Your task to perform on an android device: turn off location history Image 0: 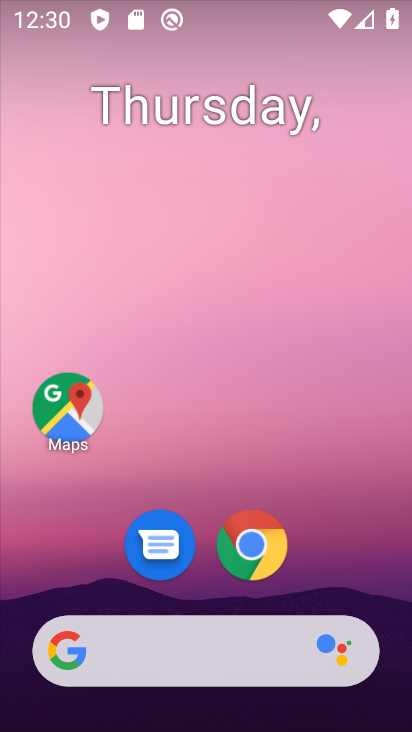
Step 0: drag from (287, 425) to (273, 134)
Your task to perform on an android device: turn off location history Image 1: 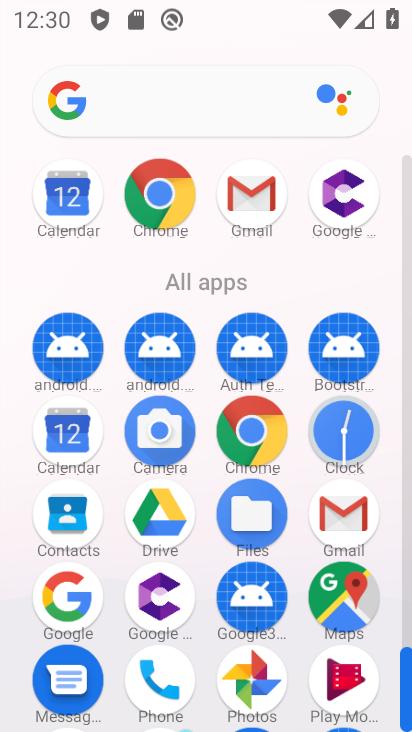
Step 1: drag from (97, 271) to (121, 81)
Your task to perform on an android device: turn off location history Image 2: 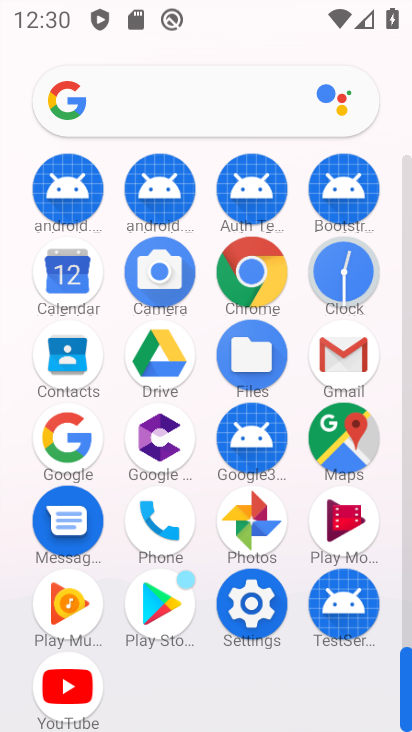
Step 2: click (238, 620)
Your task to perform on an android device: turn off location history Image 3: 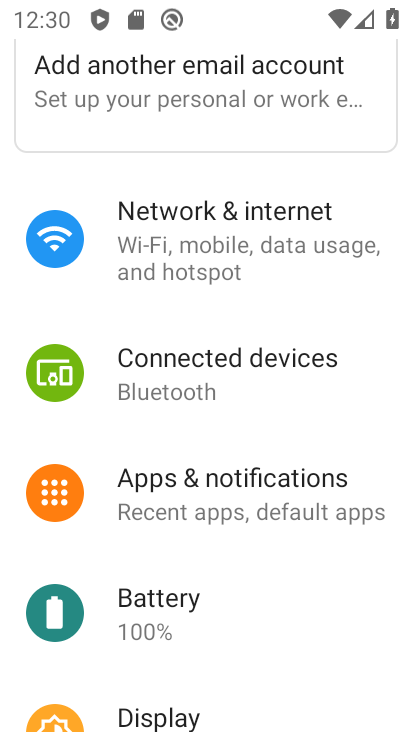
Step 3: drag from (194, 575) to (264, 159)
Your task to perform on an android device: turn off location history Image 4: 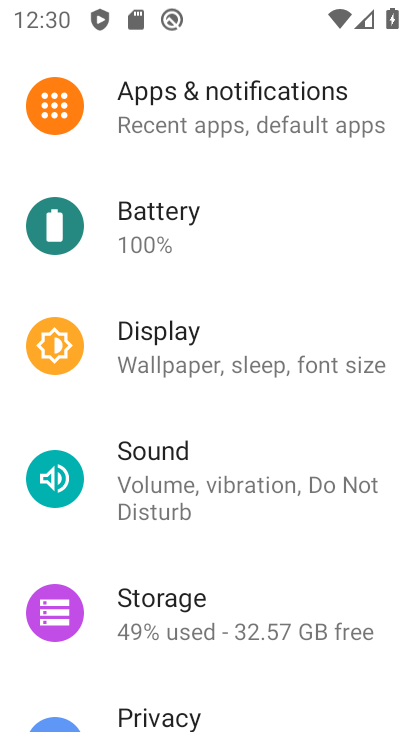
Step 4: drag from (230, 571) to (243, 239)
Your task to perform on an android device: turn off location history Image 5: 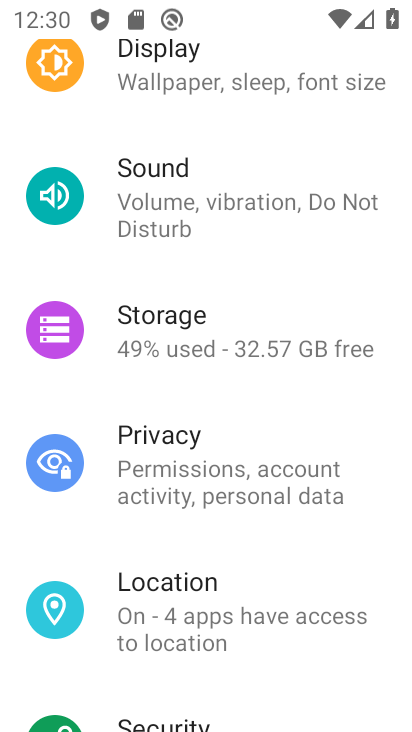
Step 5: click (213, 604)
Your task to perform on an android device: turn off location history Image 6: 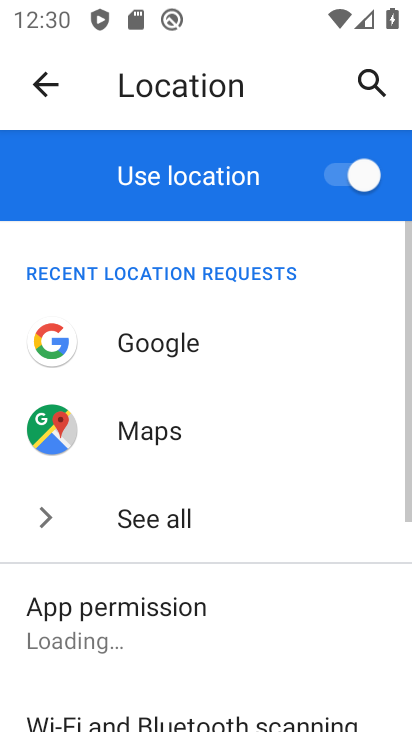
Step 6: drag from (151, 572) to (197, 264)
Your task to perform on an android device: turn off location history Image 7: 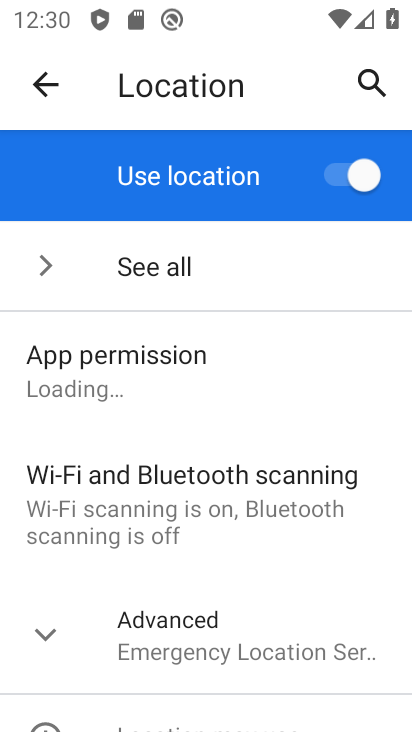
Step 7: click (199, 632)
Your task to perform on an android device: turn off location history Image 8: 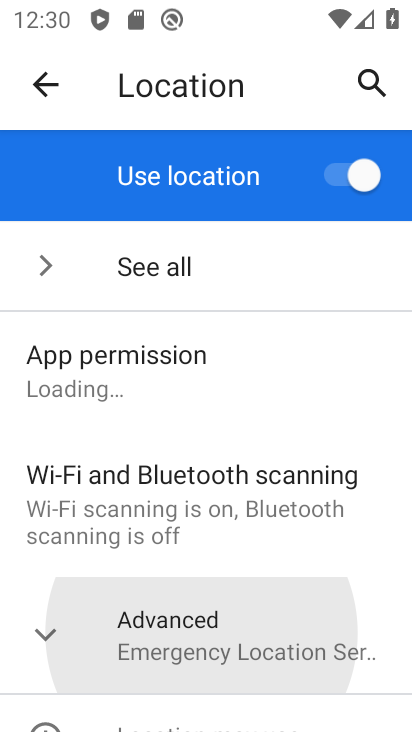
Step 8: drag from (195, 599) to (213, 336)
Your task to perform on an android device: turn off location history Image 9: 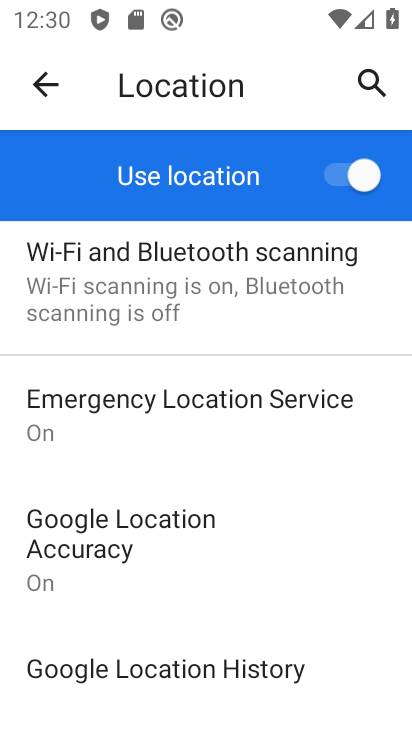
Step 9: drag from (188, 597) to (190, 409)
Your task to perform on an android device: turn off location history Image 10: 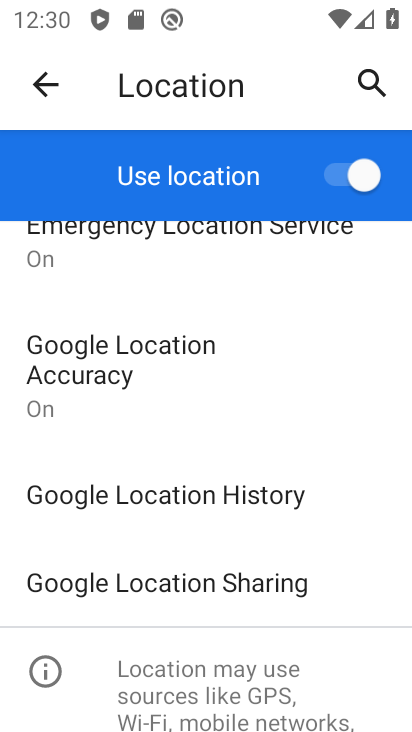
Step 10: click (210, 500)
Your task to perform on an android device: turn off location history Image 11: 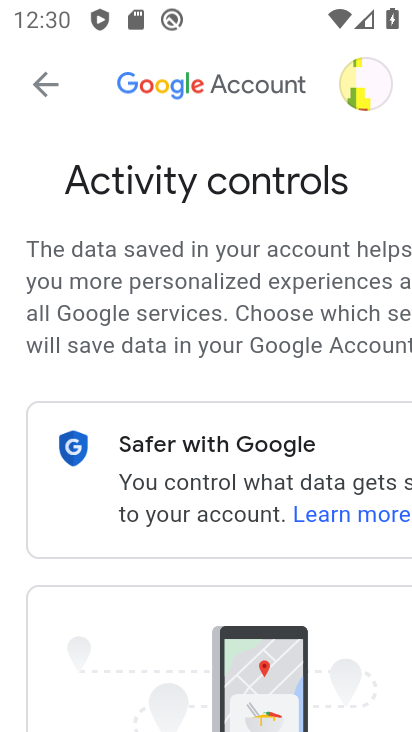
Step 11: drag from (291, 561) to (248, 278)
Your task to perform on an android device: turn off location history Image 12: 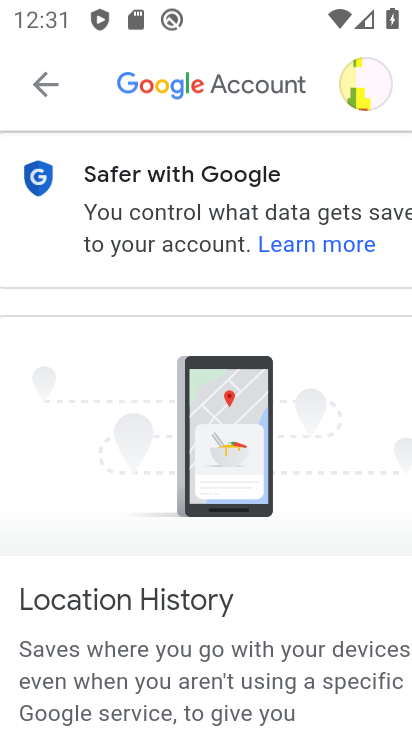
Step 12: drag from (295, 590) to (272, 316)
Your task to perform on an android device: turn off location history Image 13: 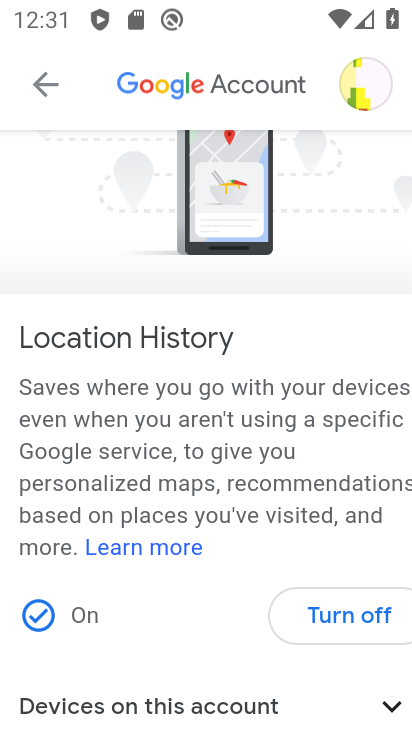
Step 13: drag from (215, 606) to (197, 377)
Your task to perform on an android device: turn off location history Image 14: 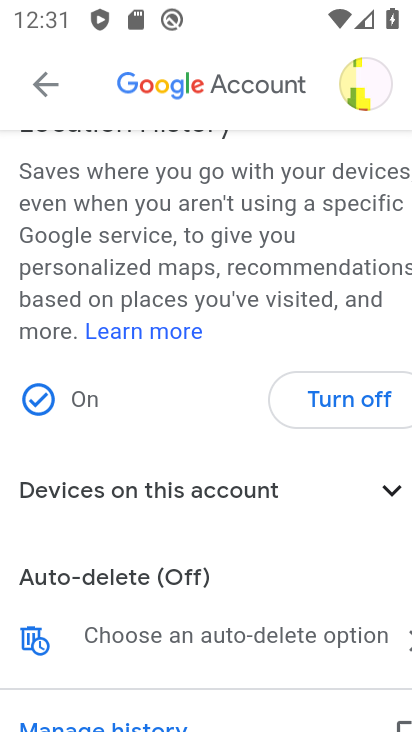
Step 14: drag from (242, 543) to (227, 379)
Your task to perform on an android device: turn off location history Image 15: 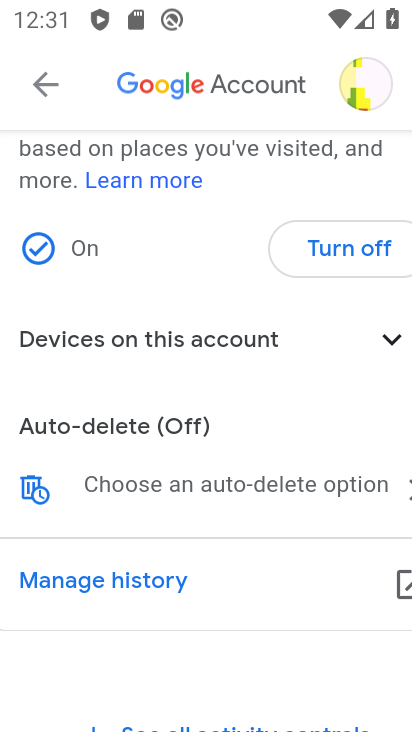
Step 15: click (322, 271)
Your task to perform on an android device: turn off location history Image 16: 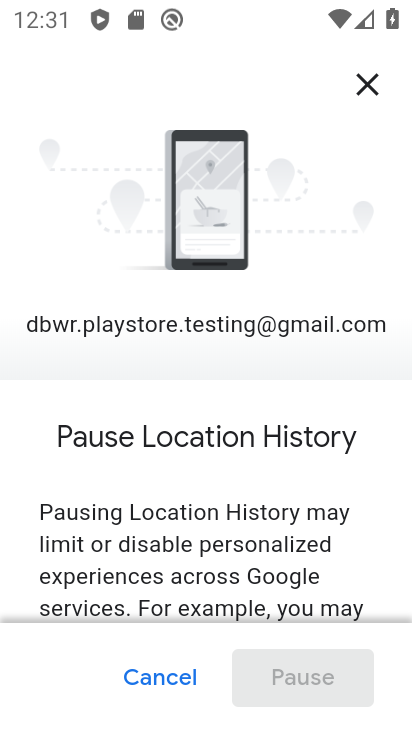
Step 16: drag from (252, 525) to (287, 146)
Your task to perform on an android device: turn off location history Image 17: 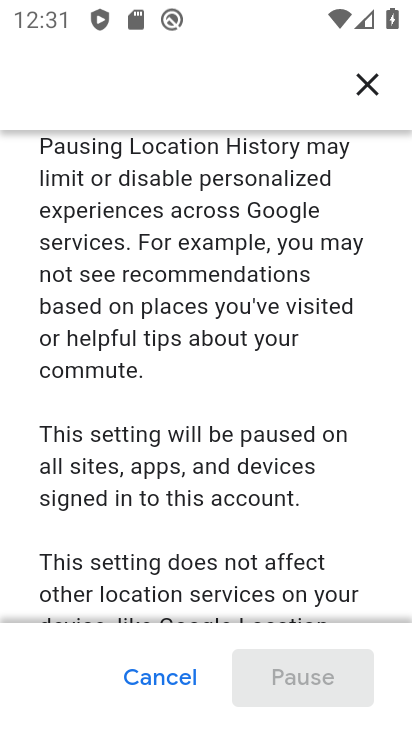
Step 17: drag from (194, 526) to (185, 206)
Your task to perform on an android device: turn off location history Image 18: 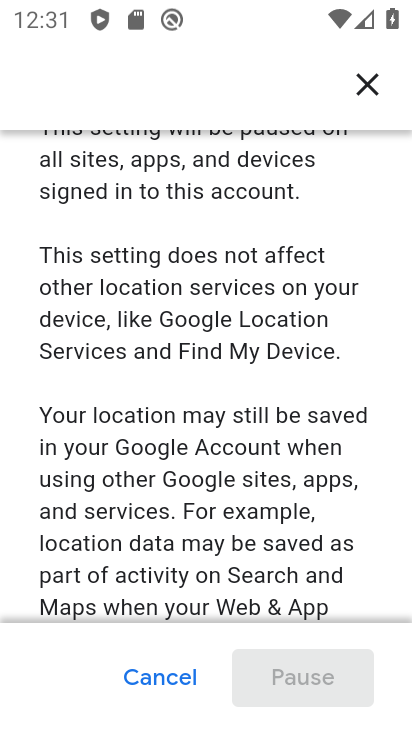
Step 18: drag from (227, 510) to (210, 196)
Your task to perform on an android device: turn off location history Image 19: 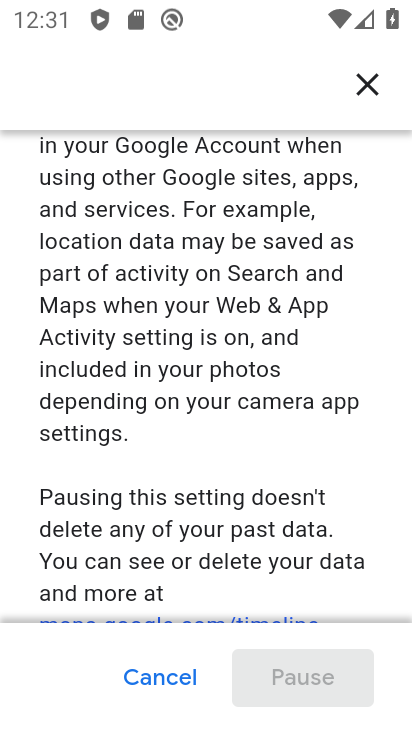
Step 19: drag from (266, 417) to (277, 171)
Your task to perform on an android device: turn off location history Image 20: 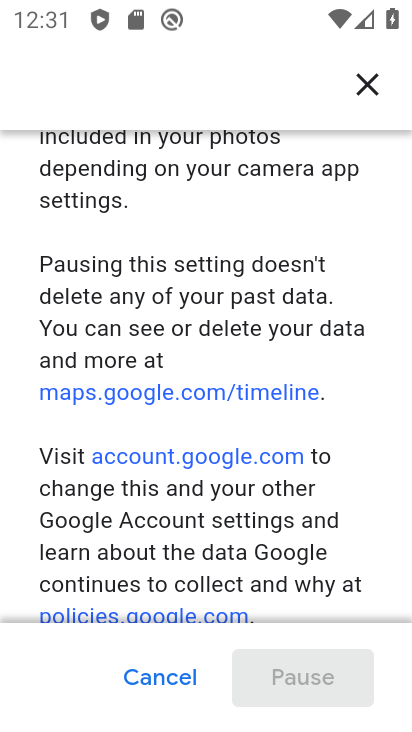
Step 20: drag from (284, 535) to (267, 206)
Your task to perform on an android device: turn off location history Image 21: 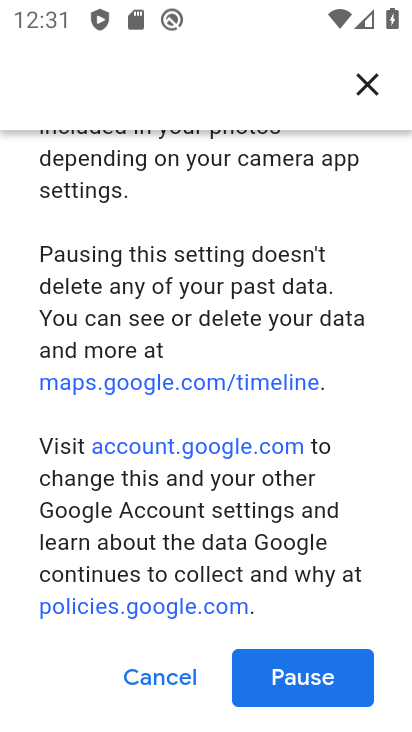
Step 21: click (314, 676)
Your task to perform on an android device: turn off location history Image 22: 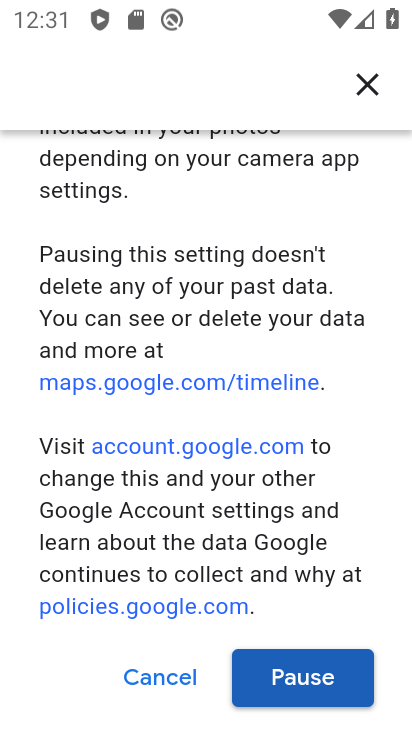
Step 22: click (316, 690)
Your task to perform on an android device: turn off location history Image 23: 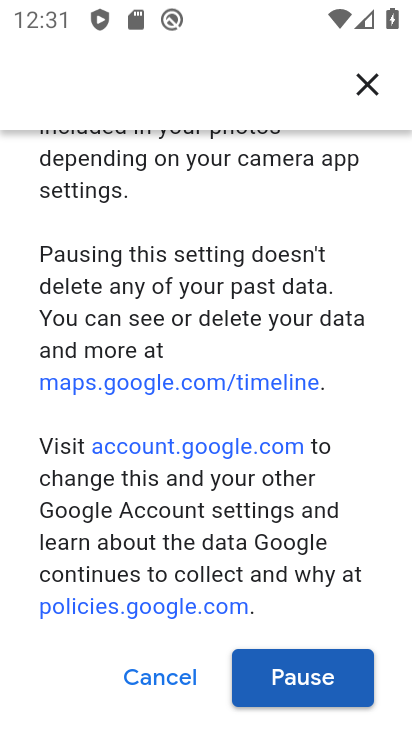
Step 23: click (317, 689)
Your task to perform on an android device: turn off location history Image 24: 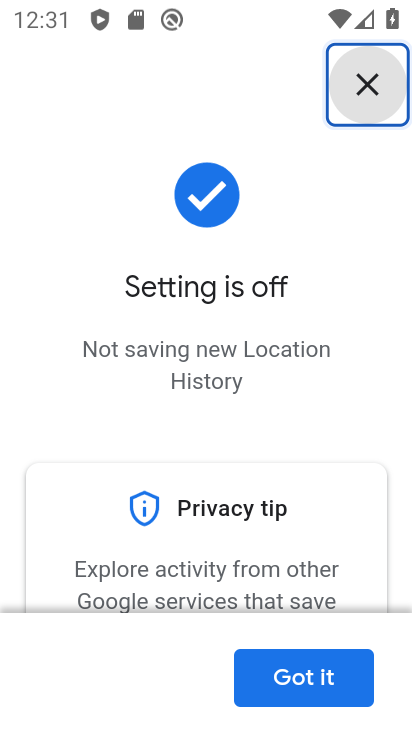
Step 24: click (275, 679)
Your task to perform on an android device: turn off location history Image 25: 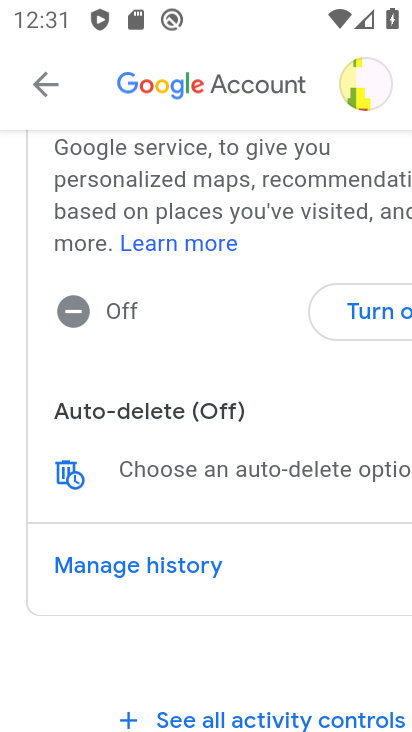
Step 25: task complete